Your task to perform on an android device: turn on airplane mode Image 0: 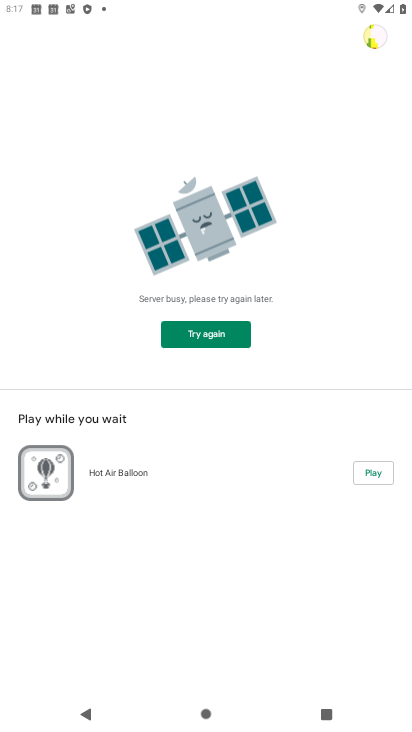
Step 0: press home button
Your task to perform on an android device: turn on airplane mode Image 1: 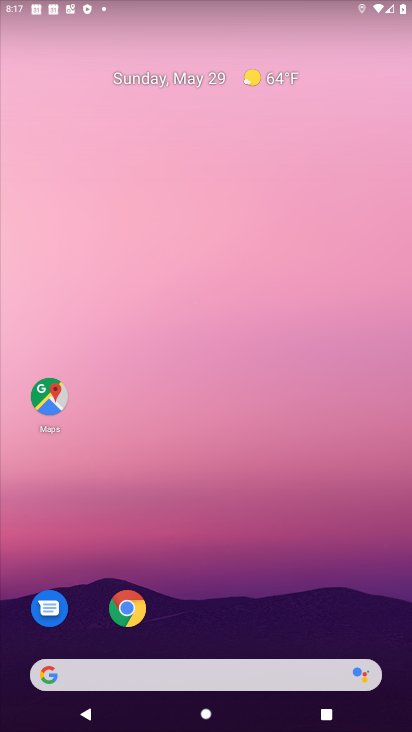
Step 1: drag from (254, 516) to (241, 30)
Your task to perform on an android device: turn on airplane mode Image 2: 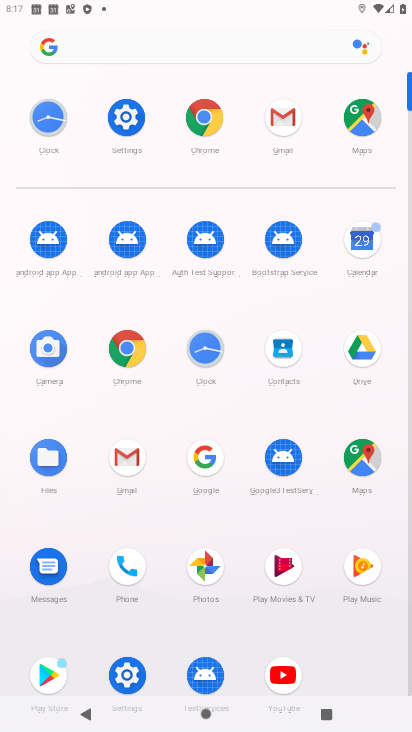
Step 2: click (128, 136)
Your task to perform on an android device: turn on airplane mode Image 3: 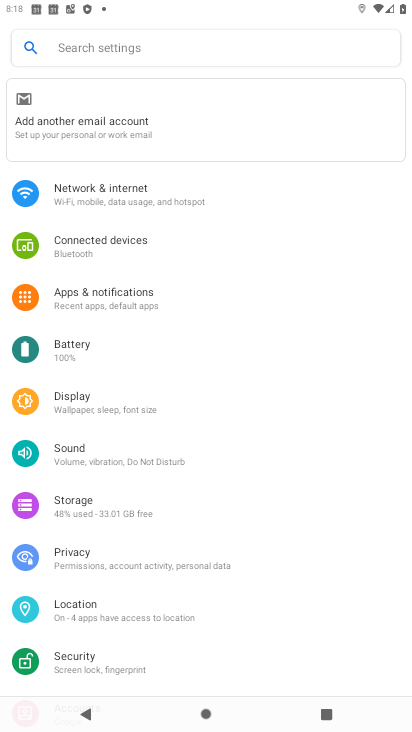
Step 3: click (124, 194)
Your task to perform on an android device: turn on airplane mode Image 4: 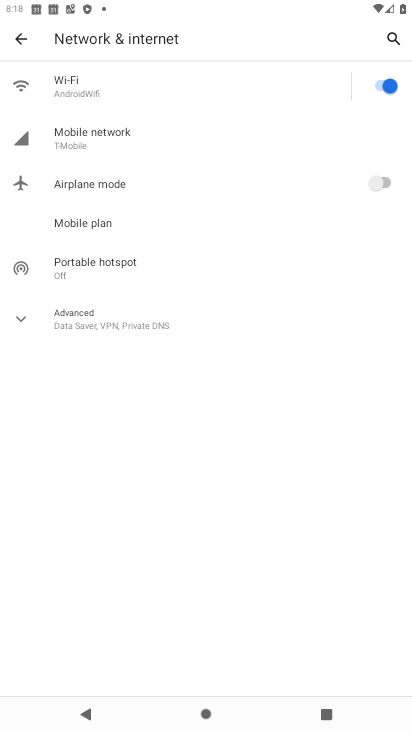
Step 4: click (373, 190)
Your task to perform on an android device: turn on airplane mode Image 5: 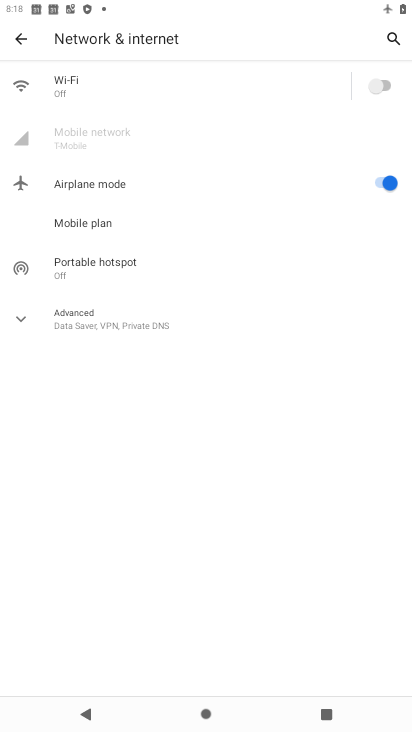
Step 5: task complete